Your task to perform on an android device: change the clock display to show seconds Image 0: 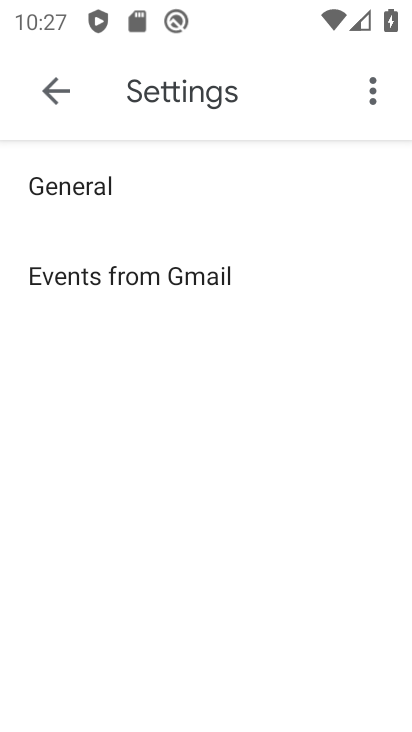
Step 0: press home button
Your task to perform on an android device: change the clock display to show seconds Image 1: 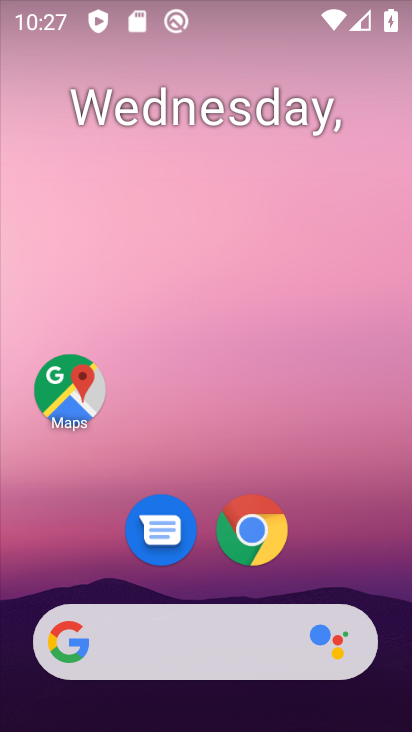
Step 1: drag from (334, 553) to (357, 100)
Your task to perform on an android device: change the clock display to show seconds Image 2: 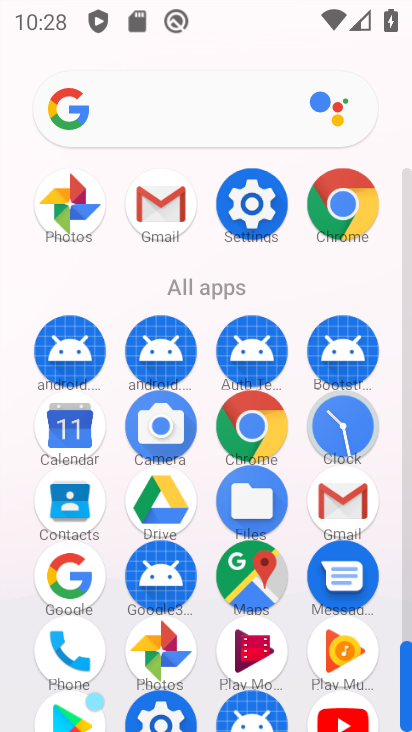
Step 2: drag from (280, 613) to (359, 378)
Your task to perform on an android device: change the clock display to show seconds Image 3: 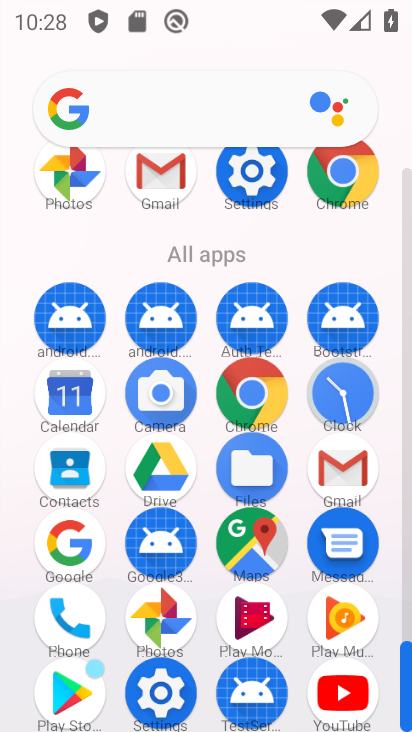
Step 3: click (370, 404)
Your task to perform on an android device: change the clock display to show seconds Image 4: 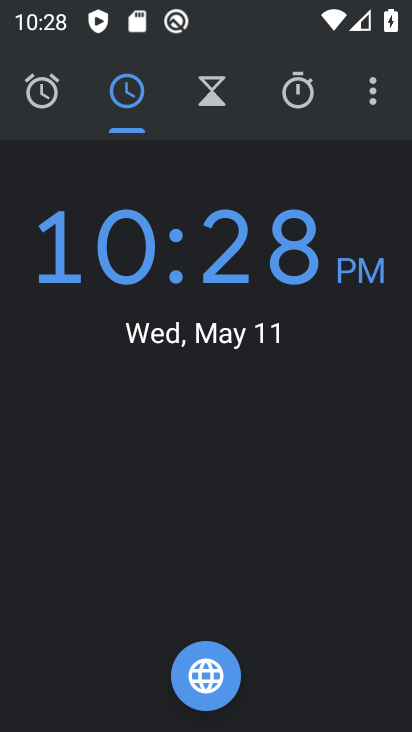
Step 4: click (381, 98)
Your task to perform on an android device: change the clock display to show seconds Image 5: 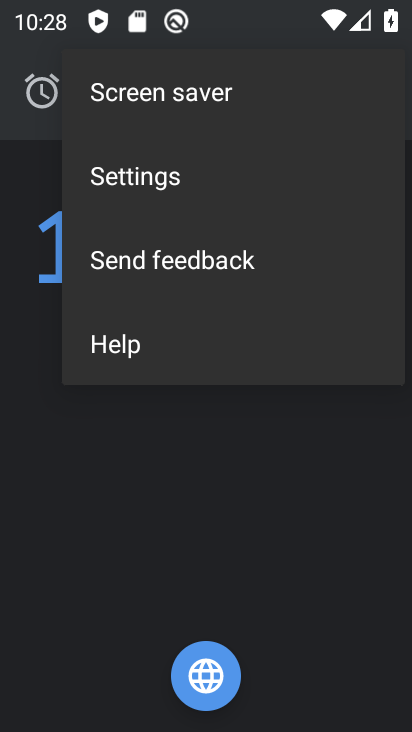
Step 5: click (284, 178)
Your task to perform on an android device: change the clock display to show seconds Image 6: 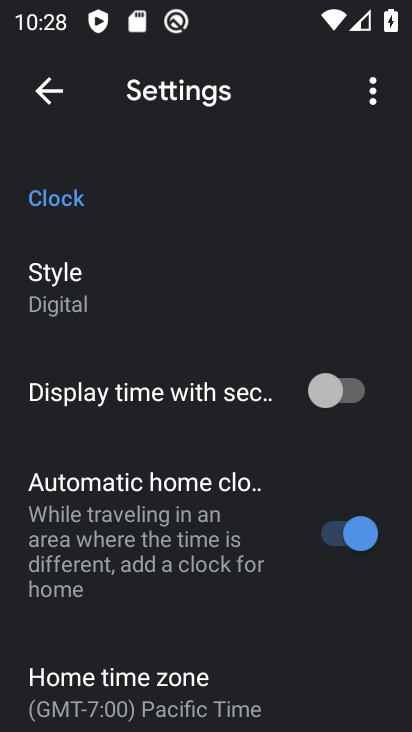
Step 6: drag from (196, 591) to (286, 272)
Your task to perform on an android device: change the clock display to show seconds Image 7: 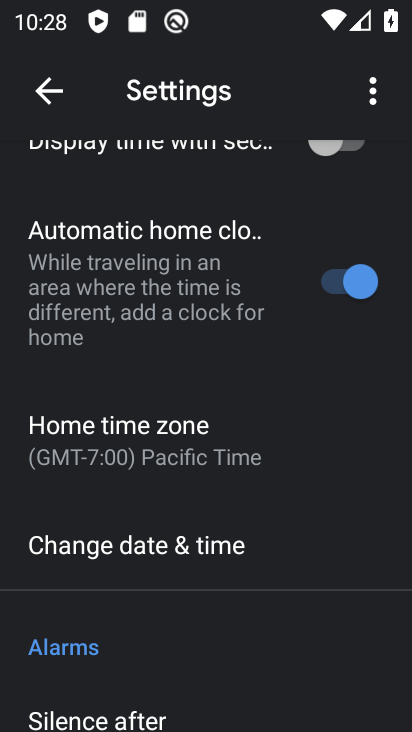
Step 7: click (361, 150)
Your task to perform on an android device: change the clock display to show seconds Image 8: 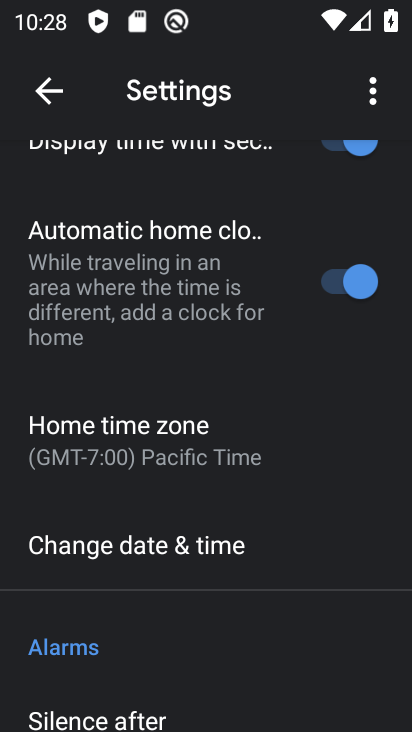
Step 8: task complete